Your task to perform on an android device: What's the news in French Guiana? Image 0: 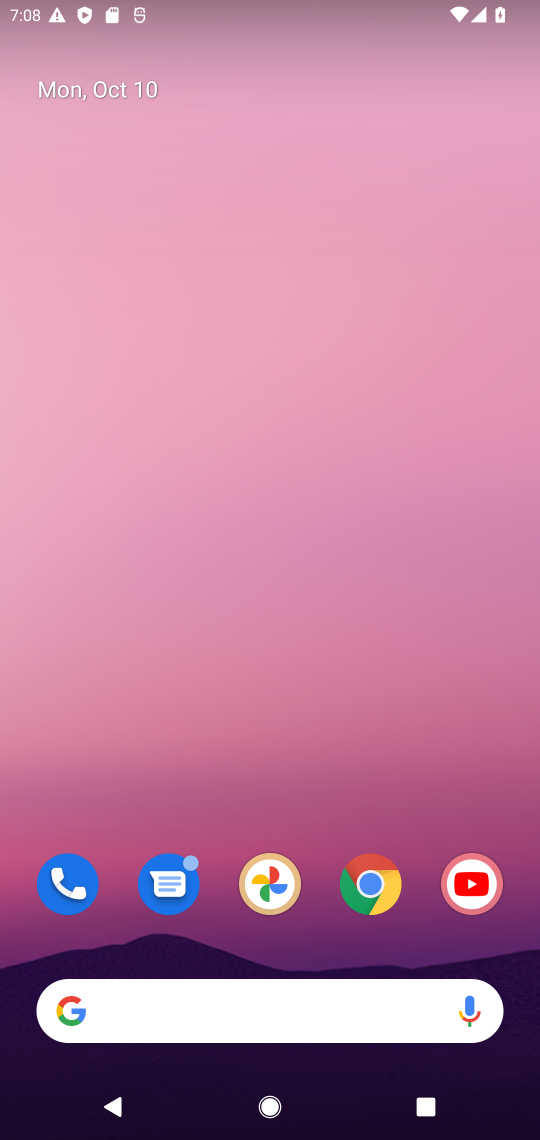
Step 0: click (285, 995)
Your task to perform on an android device: What's the news in French Guiana? Image 1: 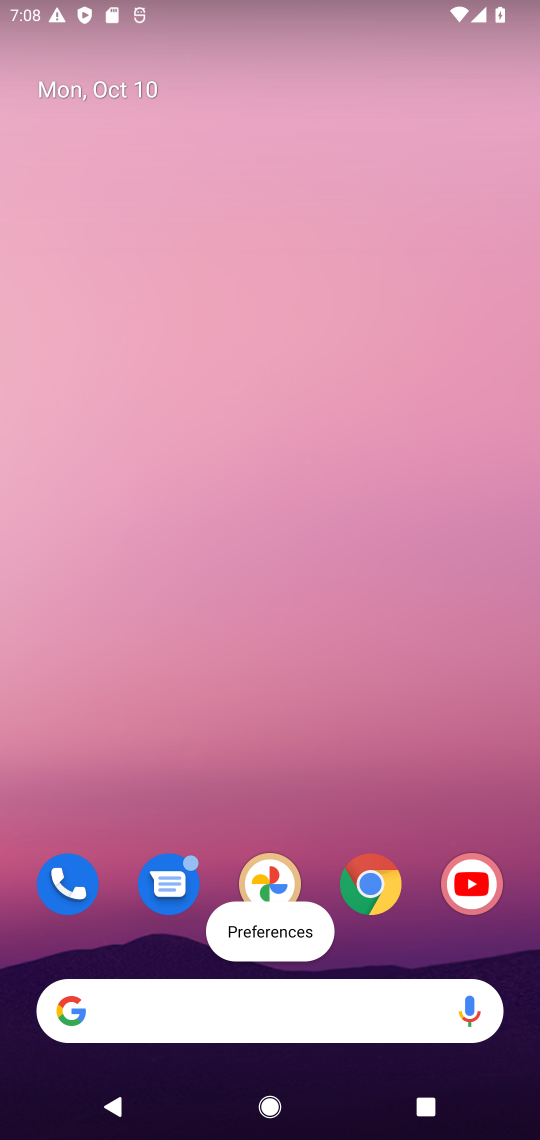
Step 1: click (375, 867)
Your task to perform on an android device: What's the news in French Guiana? Image 2: 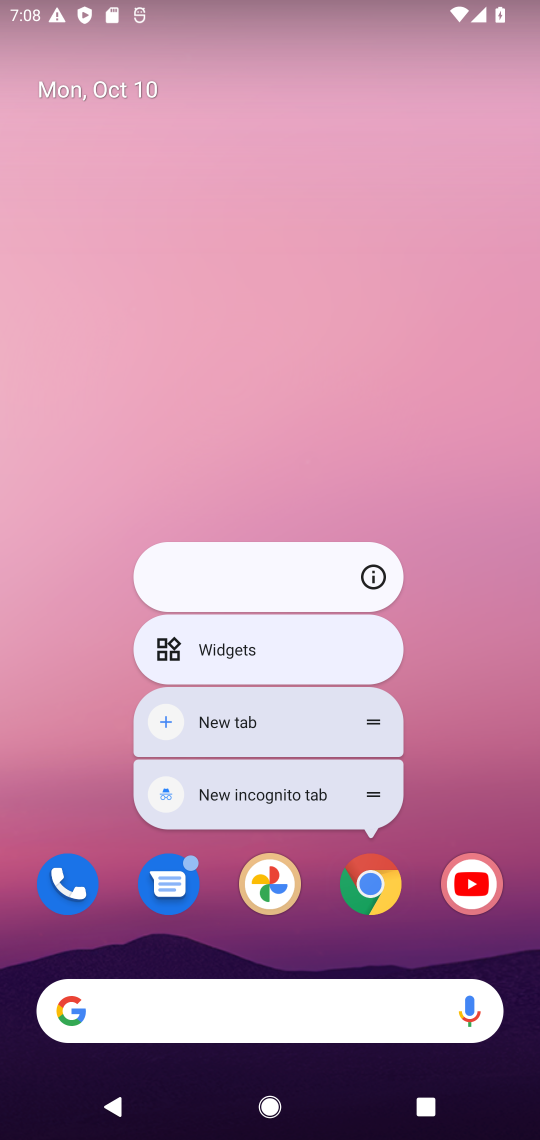
Step 2: click (343, 1067)
Your task to perform on an android device: What's the news in French Guiana? Image 3: 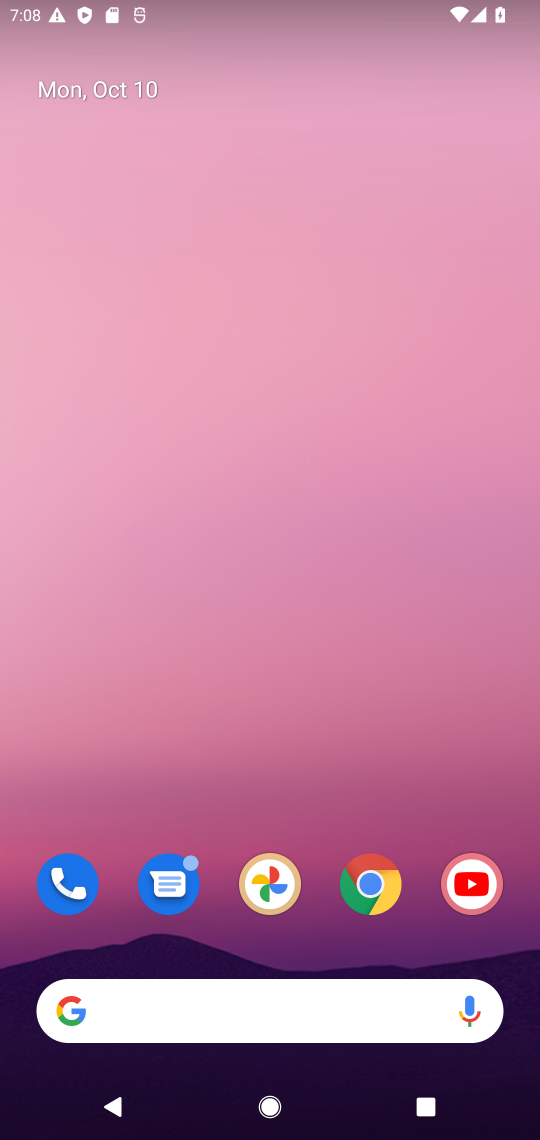
Step 3: click (381, 894)
Your task to perform on an android device: What's the news in French Guiana? Image 4: 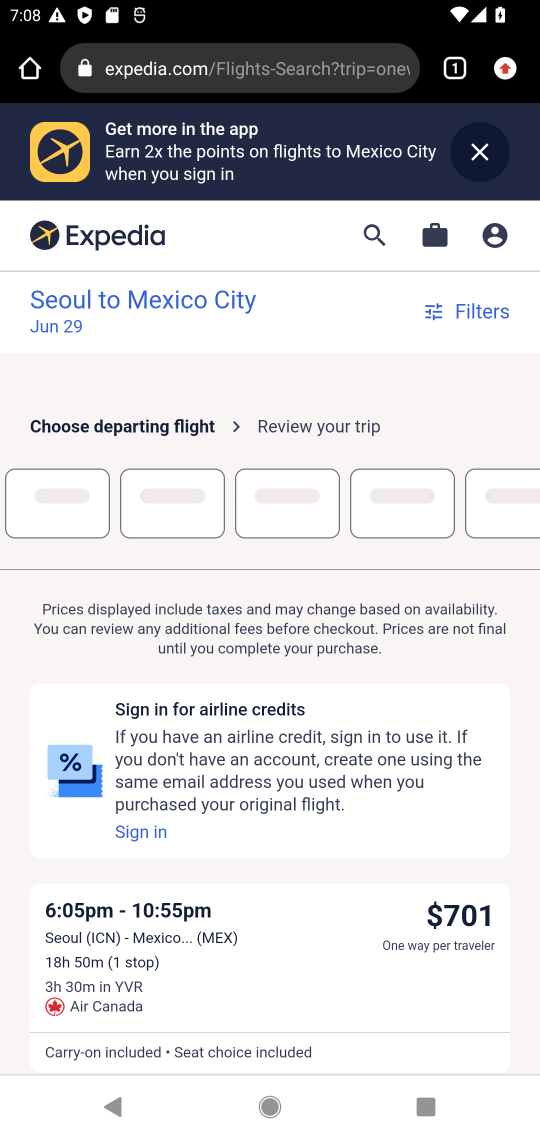
Step 4: click (324, 80)
Your task to perform on an android device: What's the news in French Guiana? Image 5: 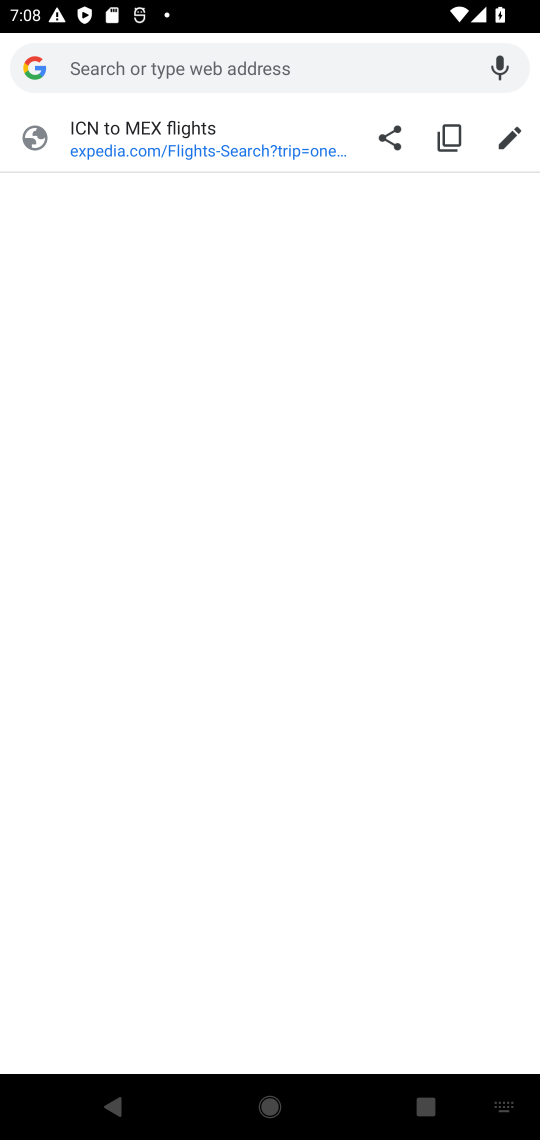
Step 5: type "What's the news in French Guiana?"
Your task to perform on an android device: What's the news in French Guiana? Image 6: 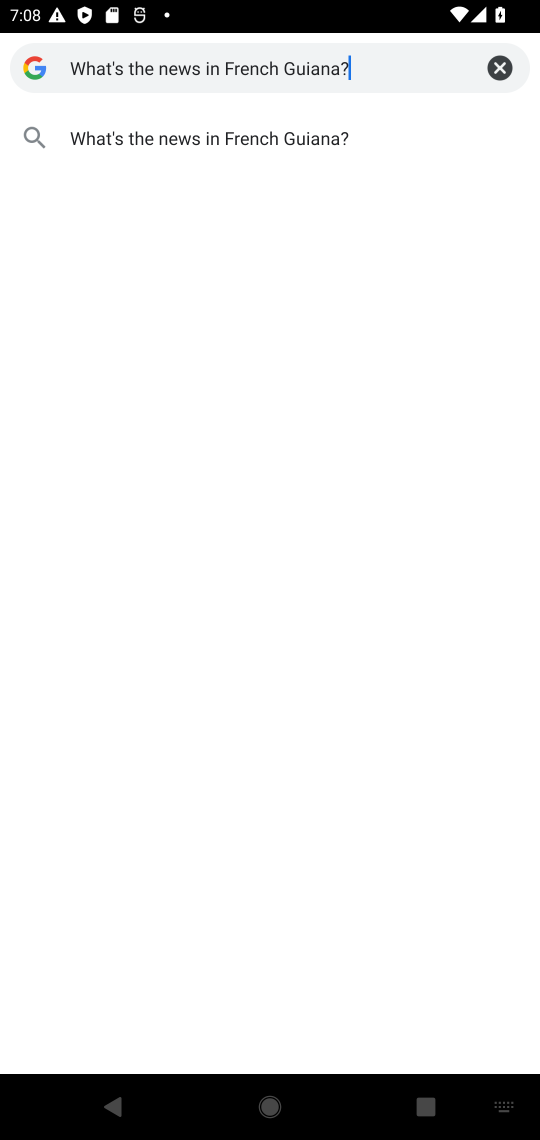
Step 6: click (195, 136)
Your task to perform on an android device: What's the news in French Guiana? Image 7: 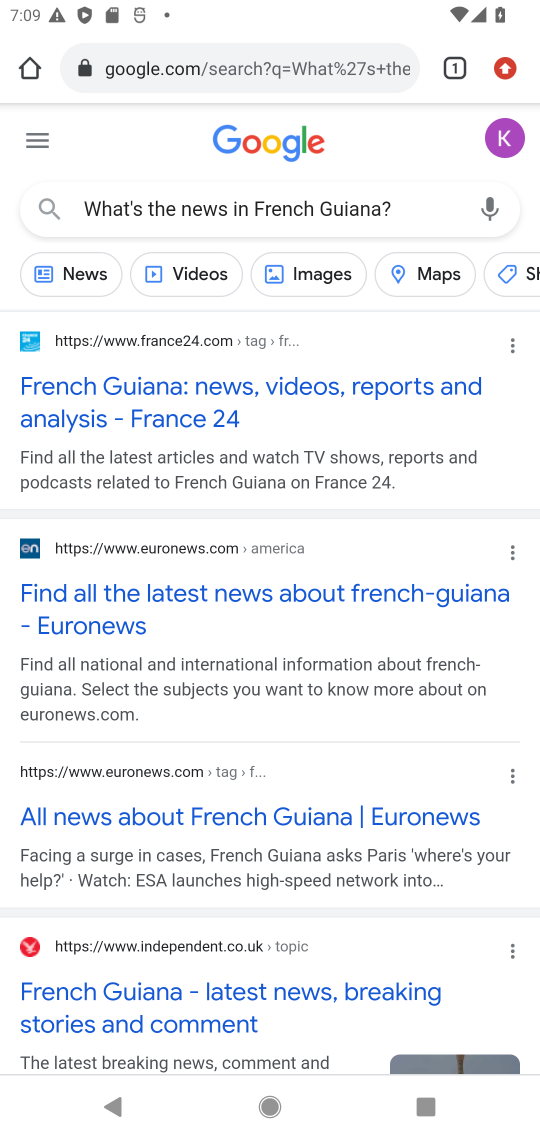
Step 7: click (194, 391)
Your task to perform on an android device: What's the news in French Guiana? Image 8: 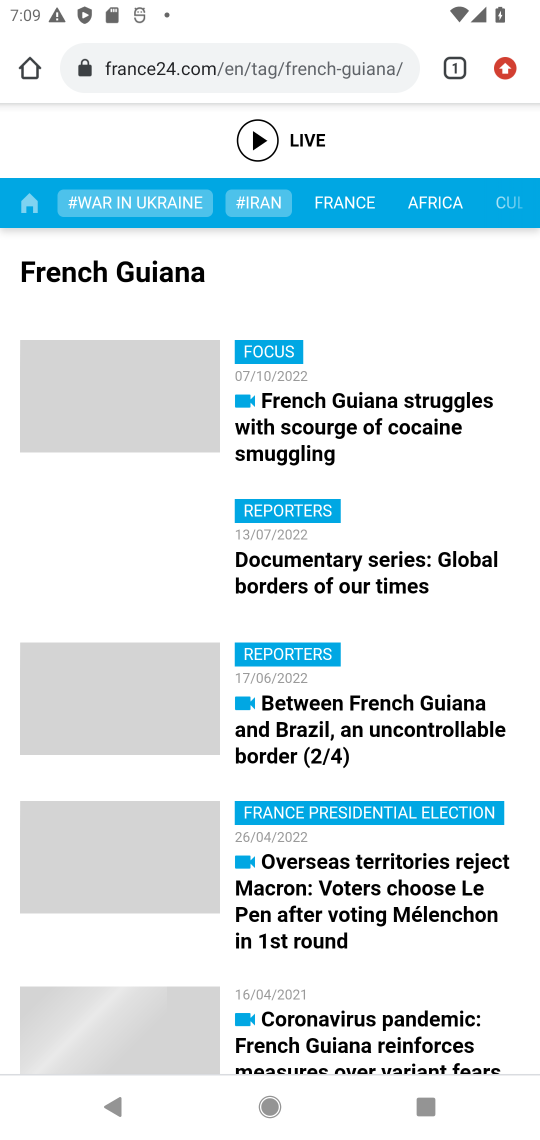
Step 8: drag from (405, 951) to (334, 272)
Your task to perform on an android device: What's the news in French Guiana? Image 9: 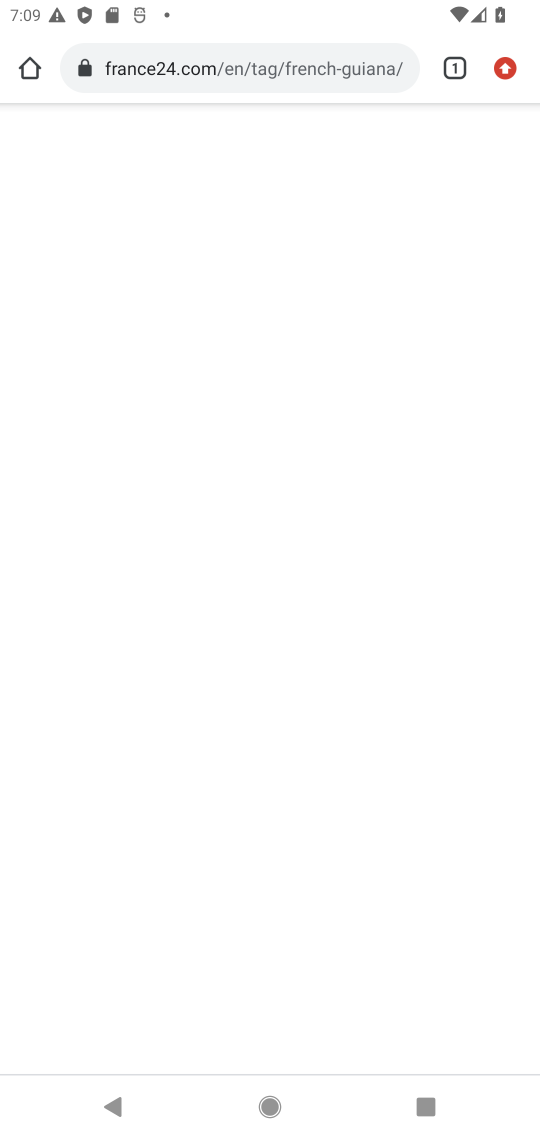
Step 9: drag from (370, 788) to (359, 392)
Your task to perform on an android device: What's the news in French Guiana? Image 10: 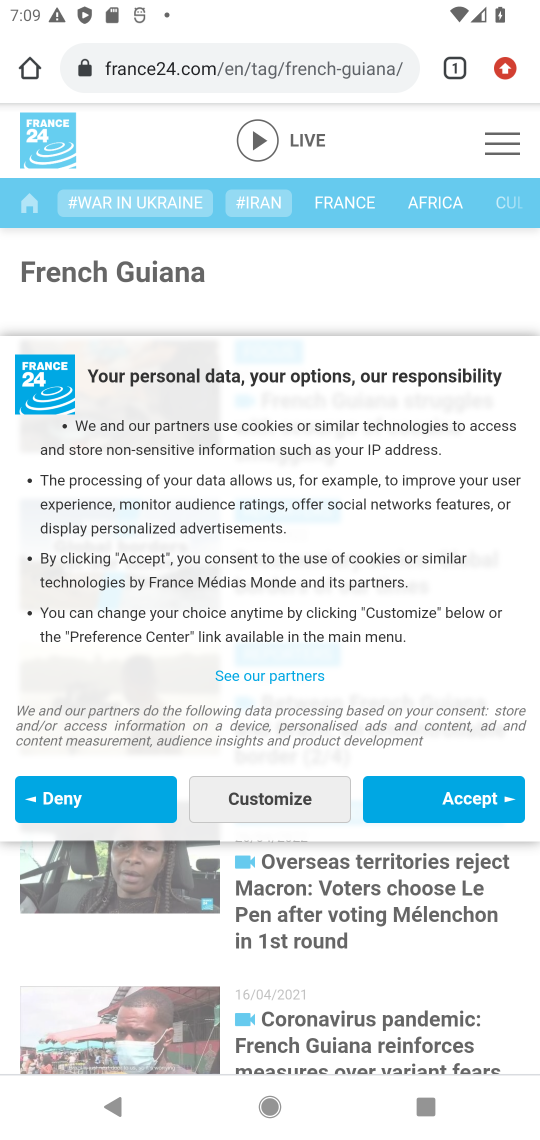
Step 10: drag from (357, 608) to (344, 798)
Your task to perform on an android device: What's the news in French Guiana? Image 11: 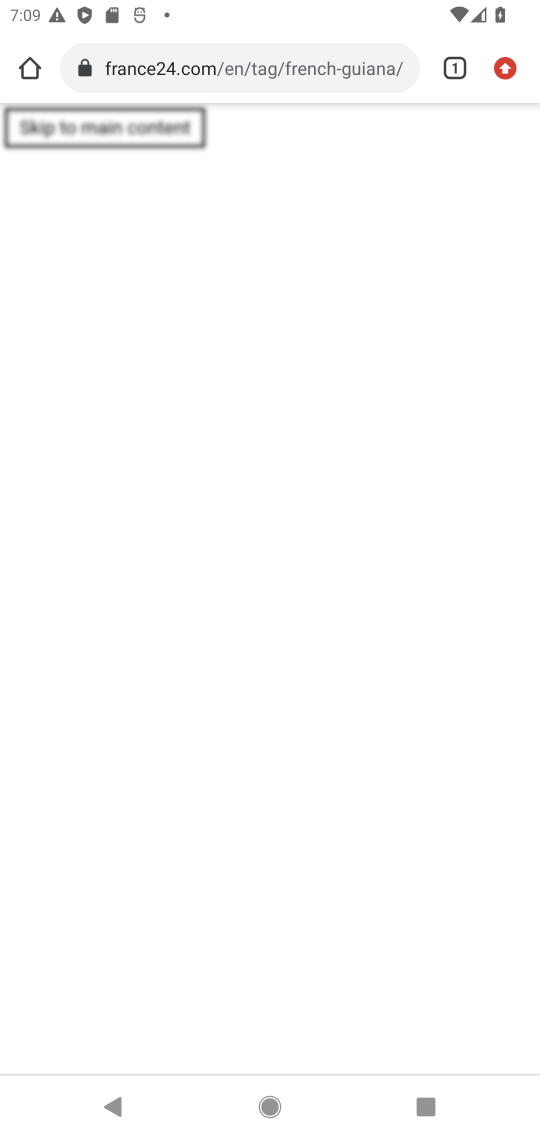
Step 11: drag from (347, 929) to (334, 684)
Your task to perform on an android device: What's the news in French Guiana? Image 12: 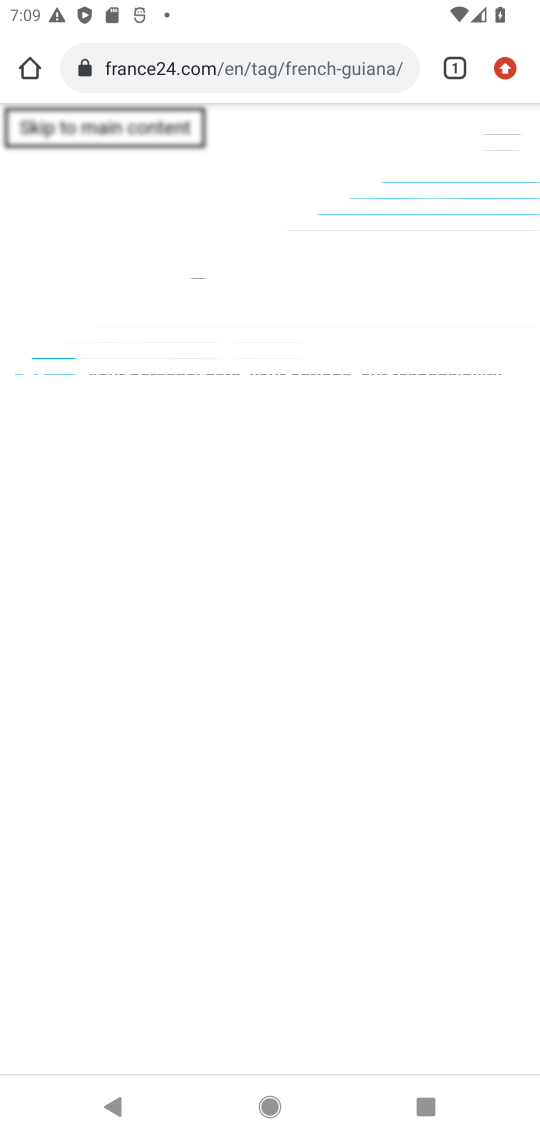
Step 12: press back button
Your task to perform on an android device: What's the news in French Guiana? Image 13: 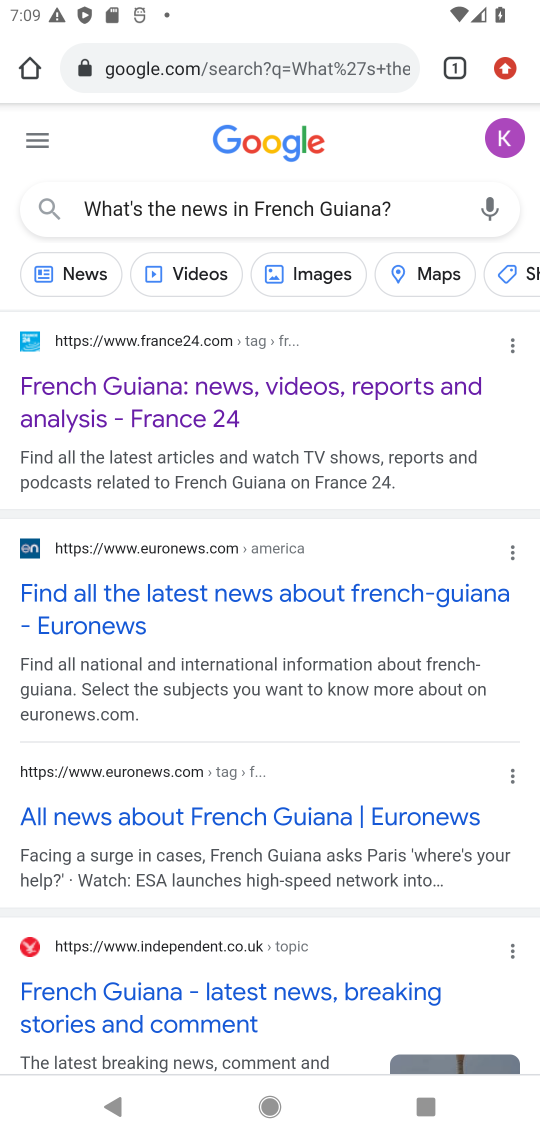
Step 13: click (227, 601)
Your task to perform on an android device: What's the news in French Guiana? Image 14: 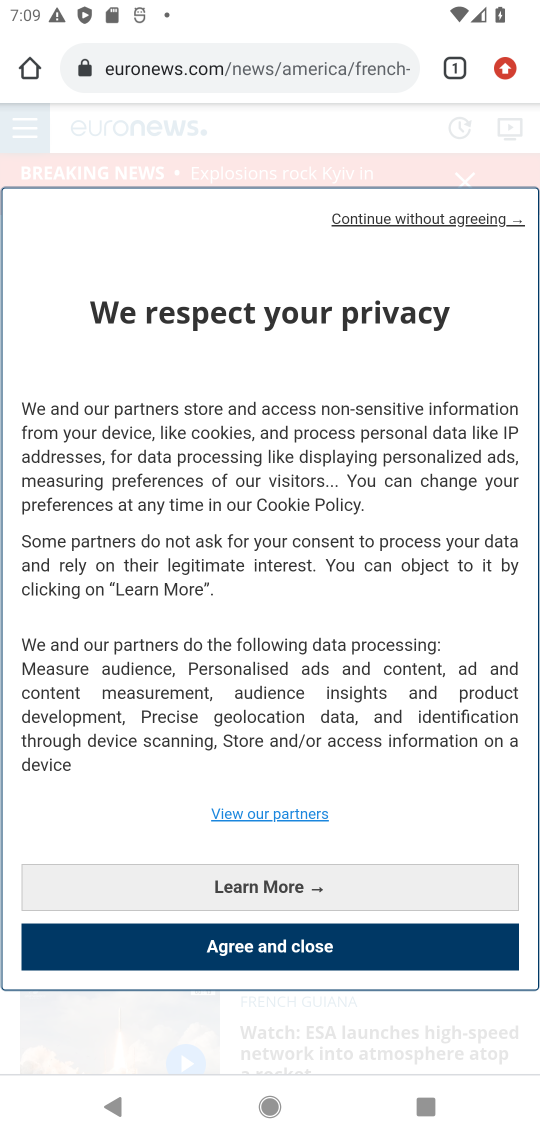
Step 14: drag from (299, 756) to (358, 368)
Your task to perform on an android device: What's the news in French Guiana? Image 15: 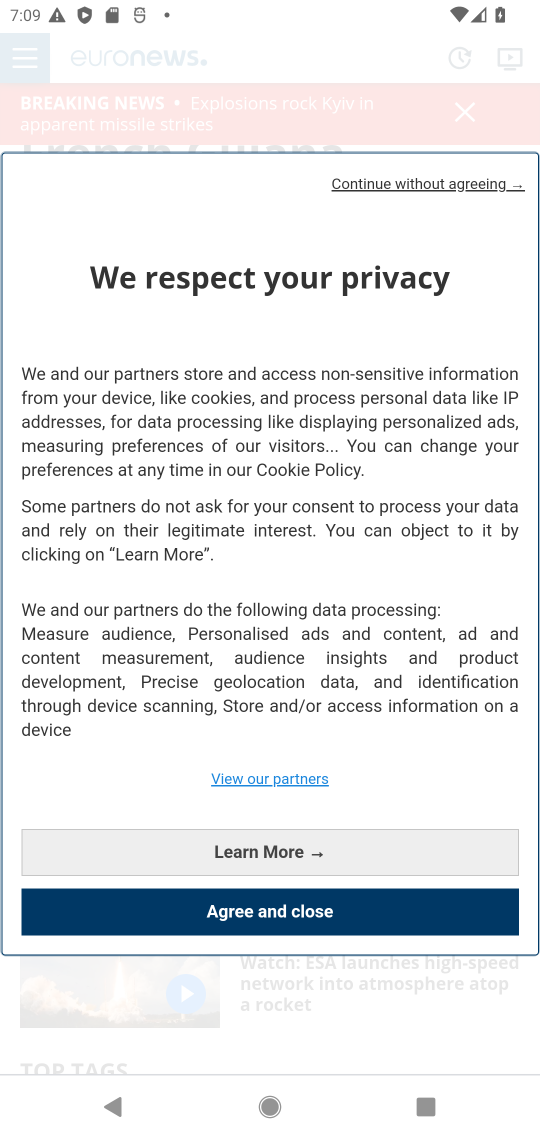
Step 15: click (387, 870)
Your task to perform on an android device: What's the news in French Guiana? Image 16: 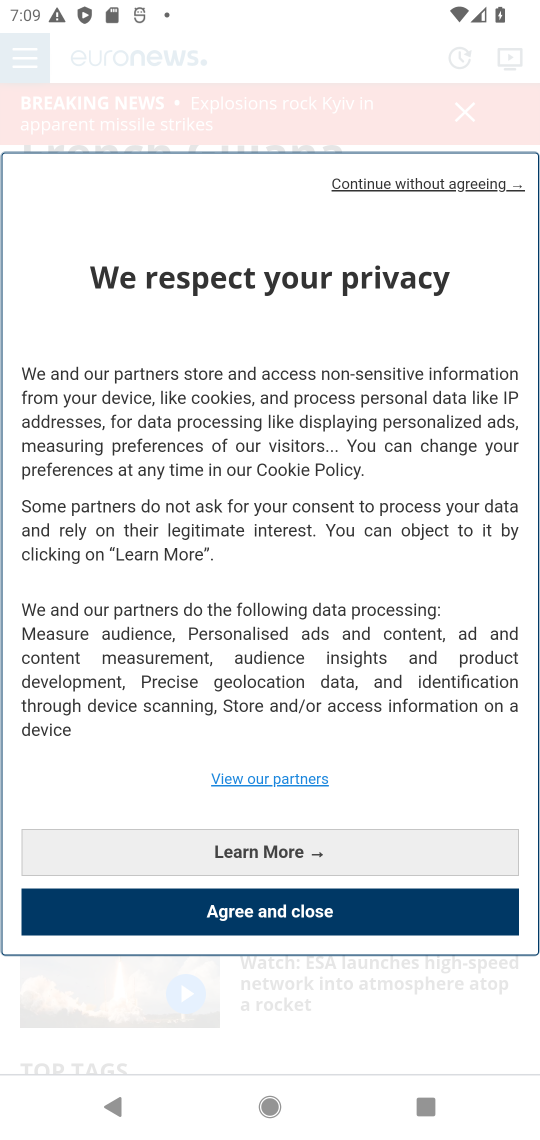
Step 16: click (382, 880)
Your task to perform on an android device: What's the news in French Guiana? Image 17: 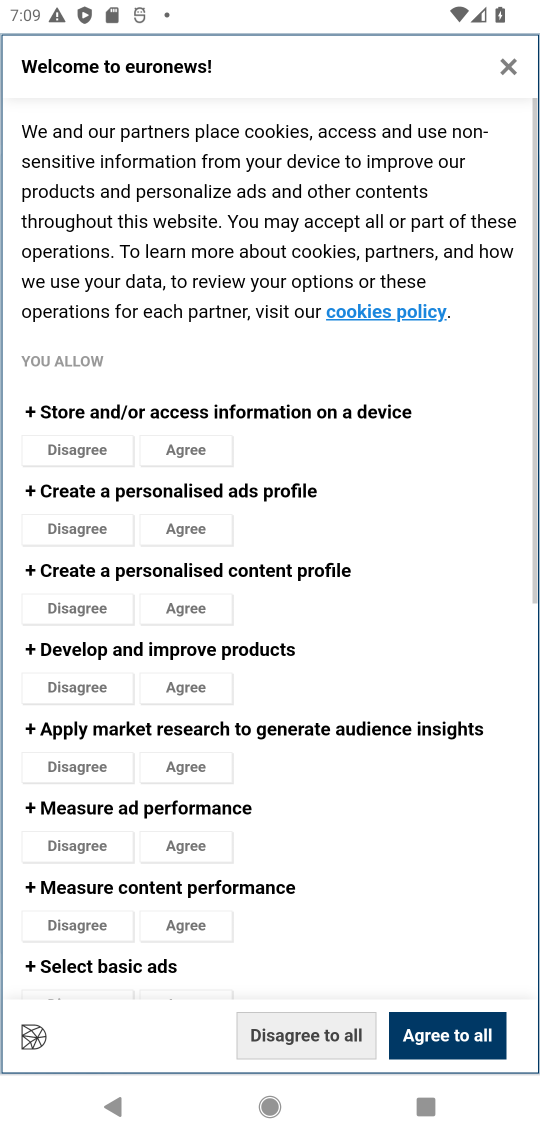
Step 17: click (377, 907)
Your task to perform on an android device: What's the news in French Guiana? Image 18: 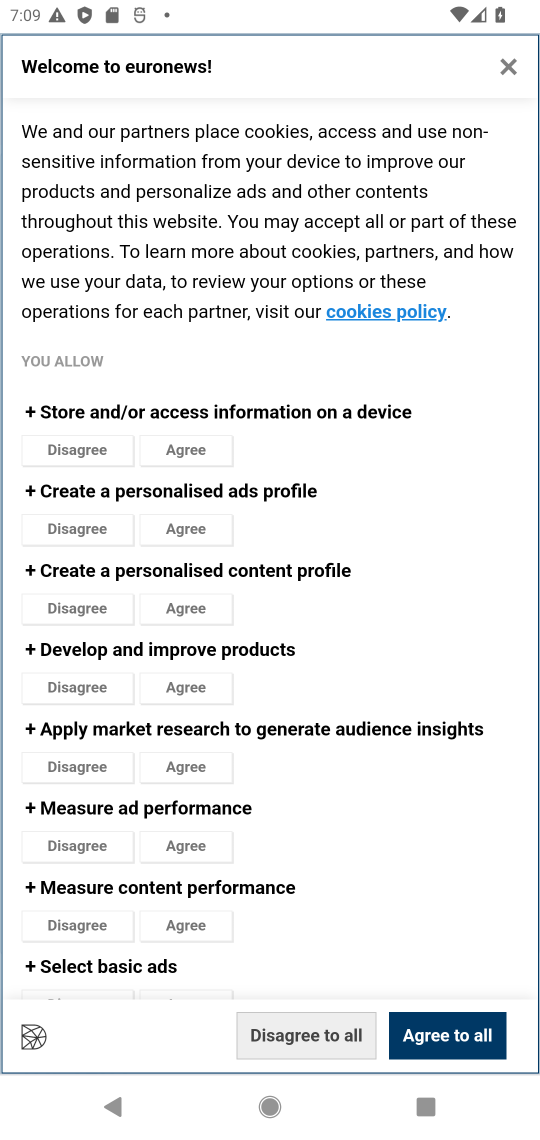
Step 18: drag from (377, 907) to (424, 460)
Your task to perform on an android device: What's the news in French Guiana? Image 19: 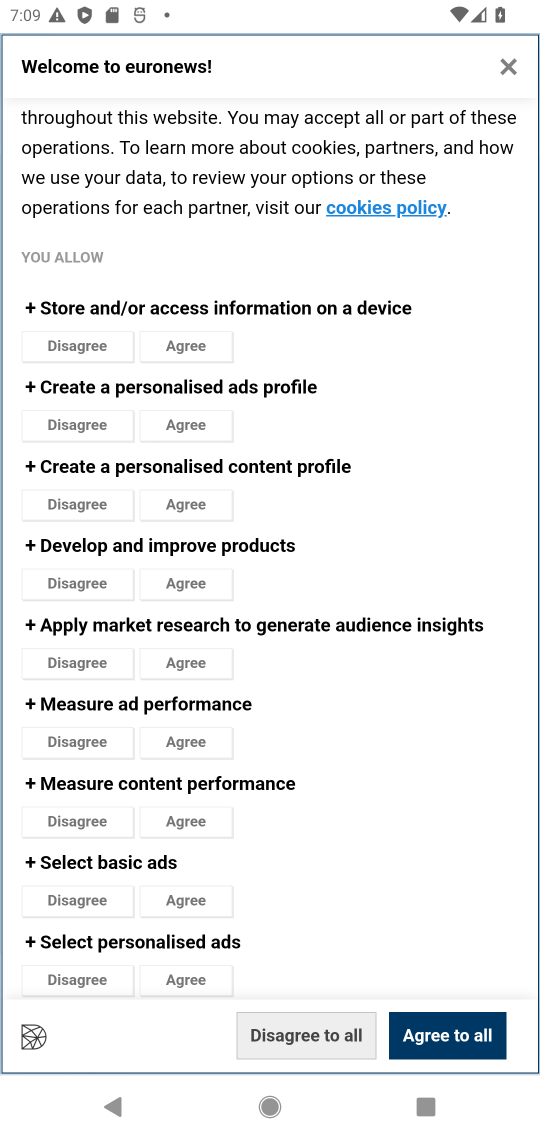
Step 19: drag from (385, 792) to (408, 414)
Your task to perform on an android device: What's the news in French Guiana? Image 20: 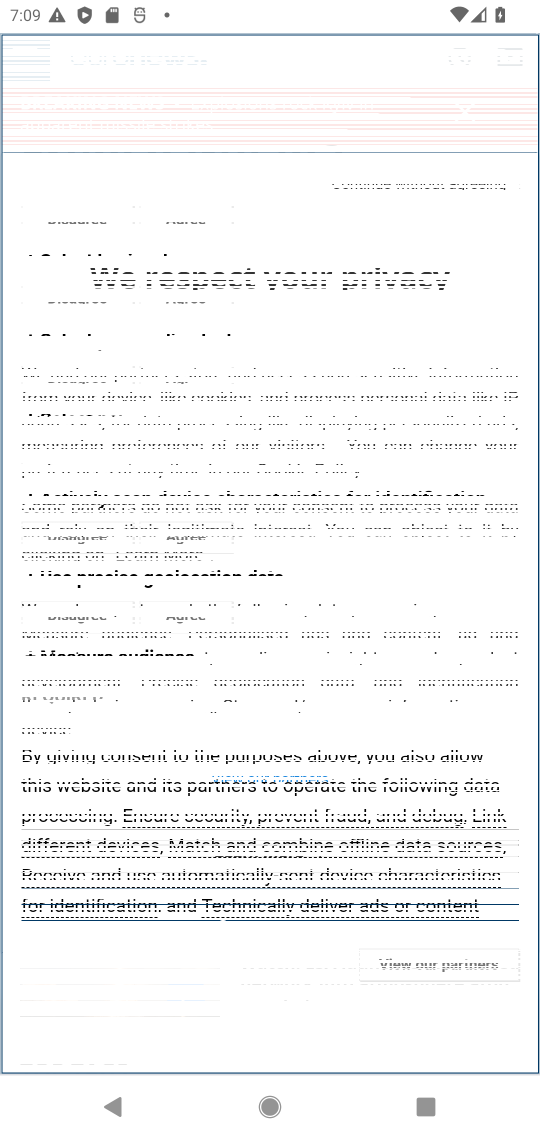
Step 20: drag from (416, 783) to (474, 365)
Your task to perform on an android device: What's the news in French Guiana? Image 21: 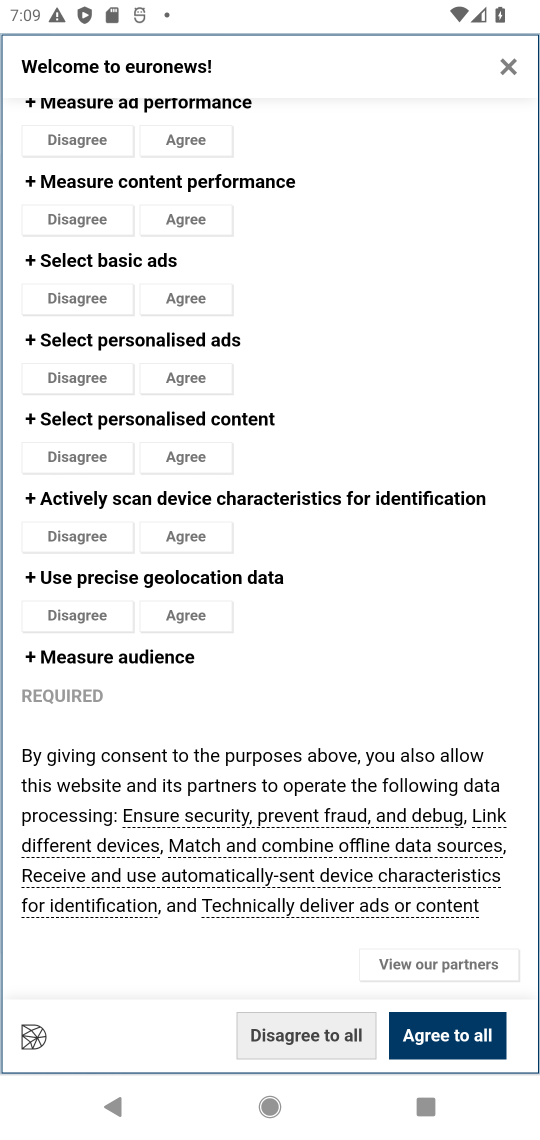
Step 21: drag from (402, 667) to (408, 478)
Your task to perform on an android device: What's the news in French Guiana? Image 22: 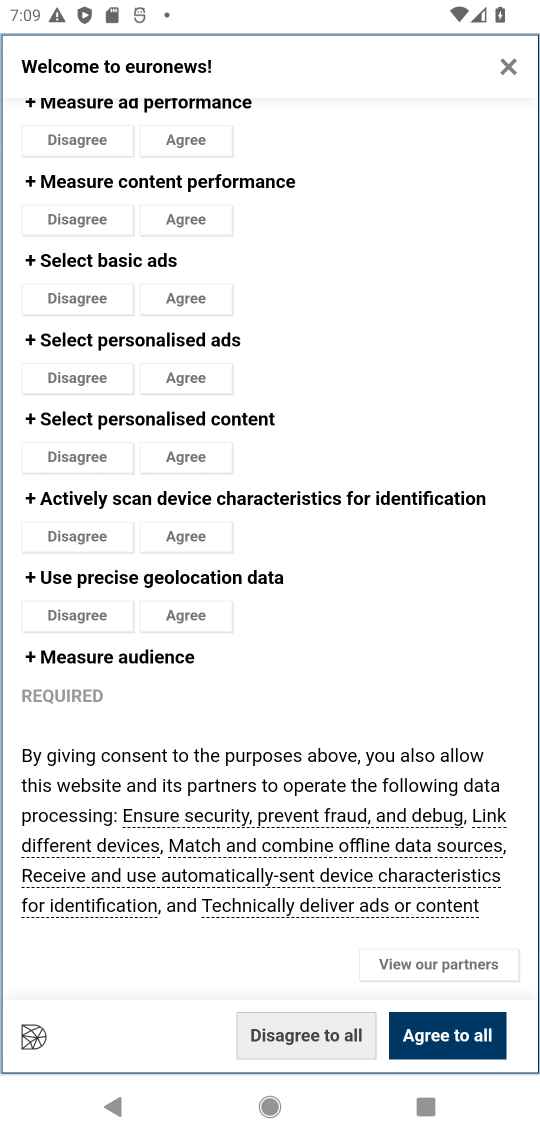
Step 22: drag from (334, 614) to (323, 364)
Your task to perform on an android device: What's the news in French Guiana? Image 23: 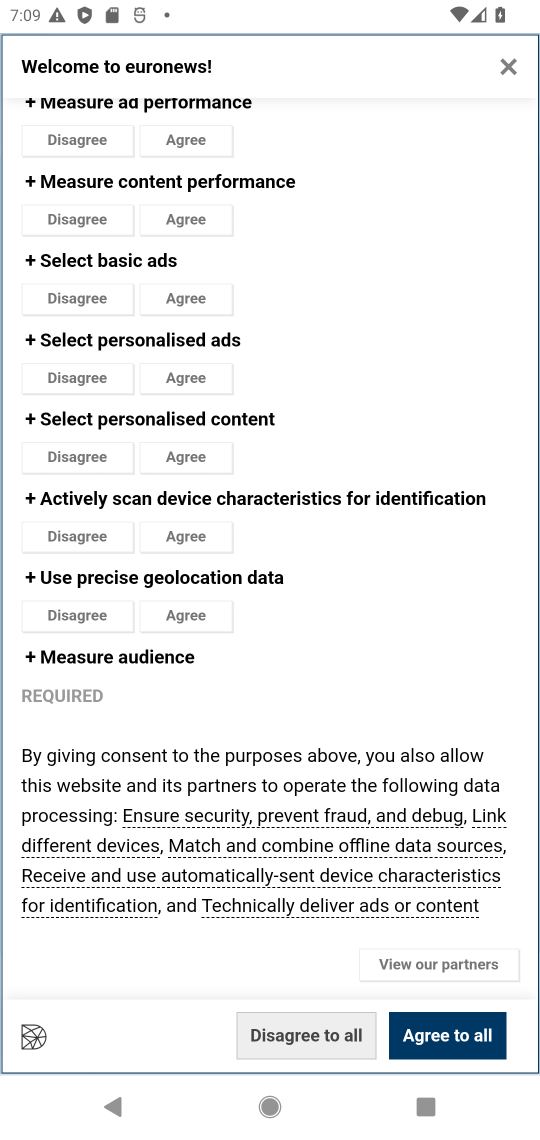
Step 23: drag from (355, 535) to (357, 384)
Your task to perform on an android device: What's the news in French Guiana? Image 24: 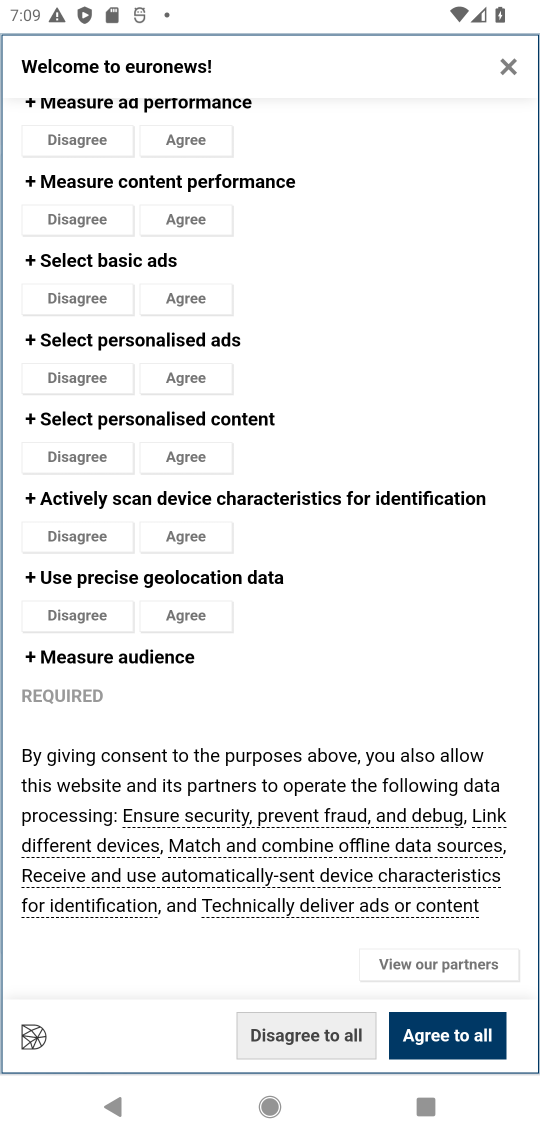
Step 24: drag from (369, 693) to (409, 308)
Your task to perform on an android device: What's the news in French Guiana? Image 25: 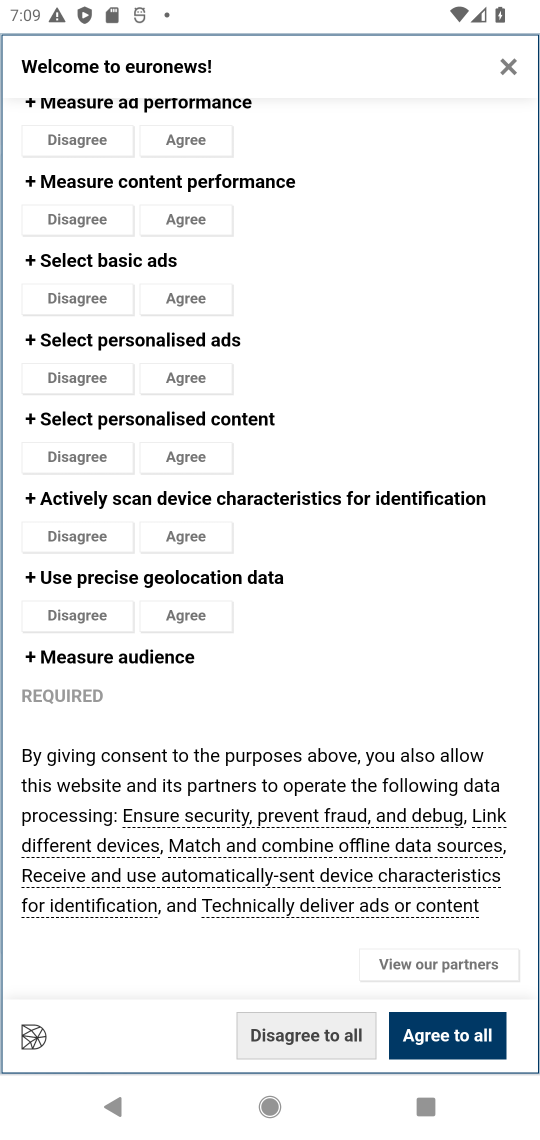
Step 25: press back button
Your task to perform on an android device: What's the news in French Guiana? Image 26: 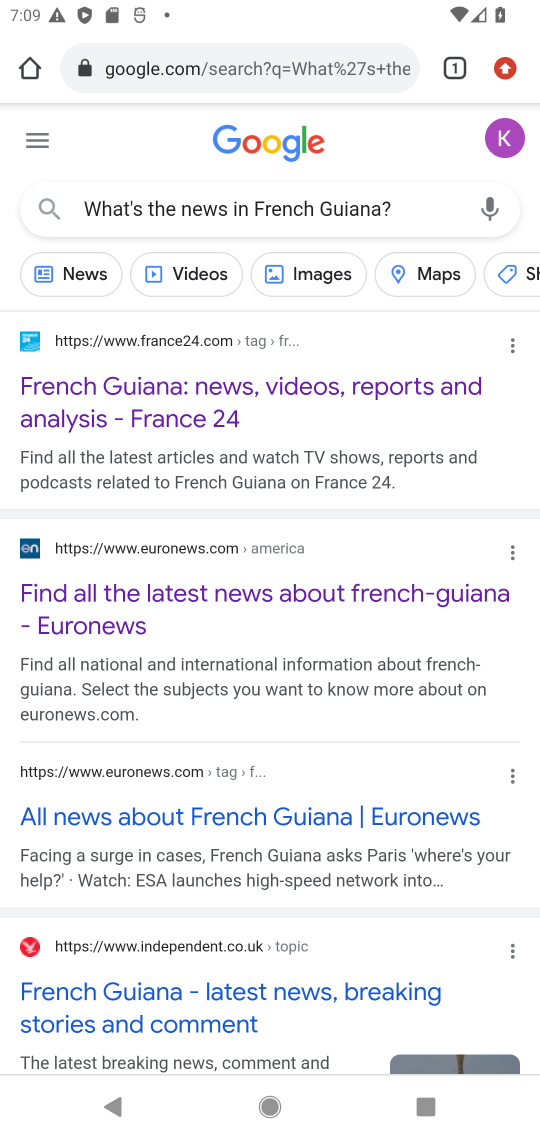
Step 26: click (146, 806)
Your task to perform on an android device: What's the news in French Guiana? Image 27: 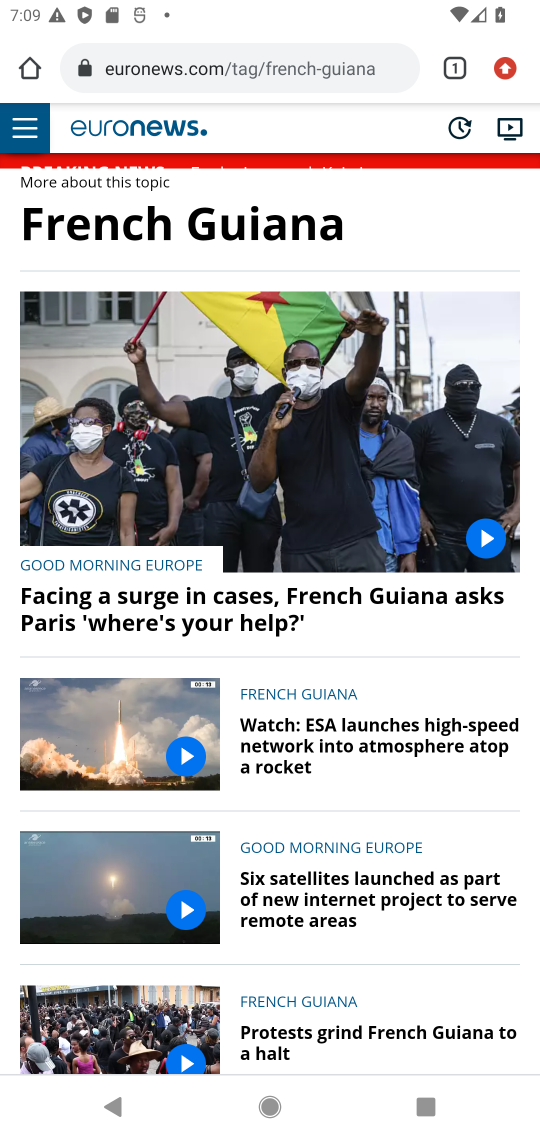
Step 27: drag from (181, 817) to (167, 567)
Your task to perform on an android device: What's the news in French Guiana? Image 28: 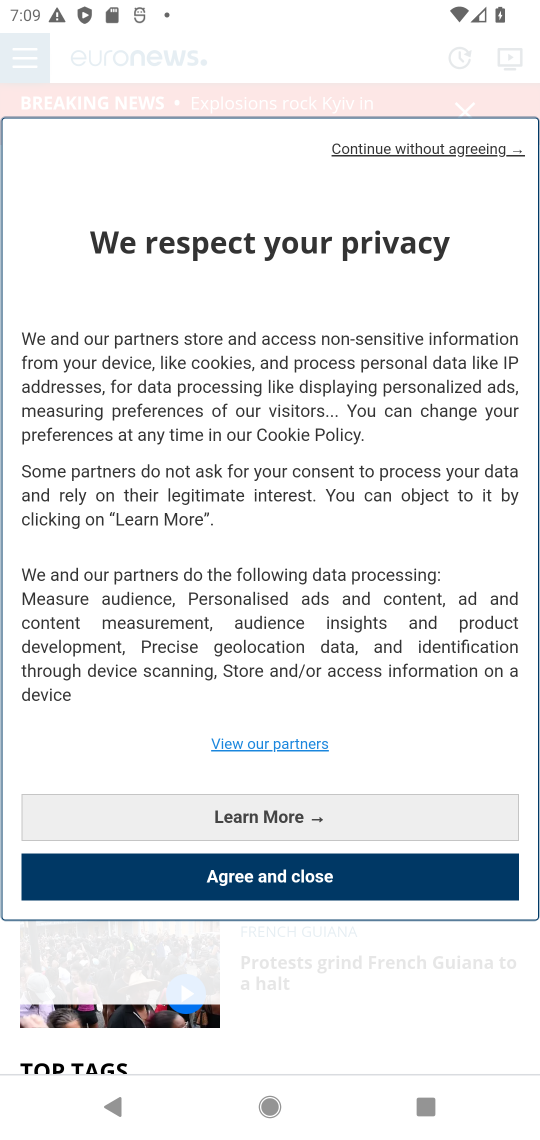
Step 28: drag from (232, 886) to (270, 563)
Your task to perform on an android device: What's the news in French Guiana? Image 29: 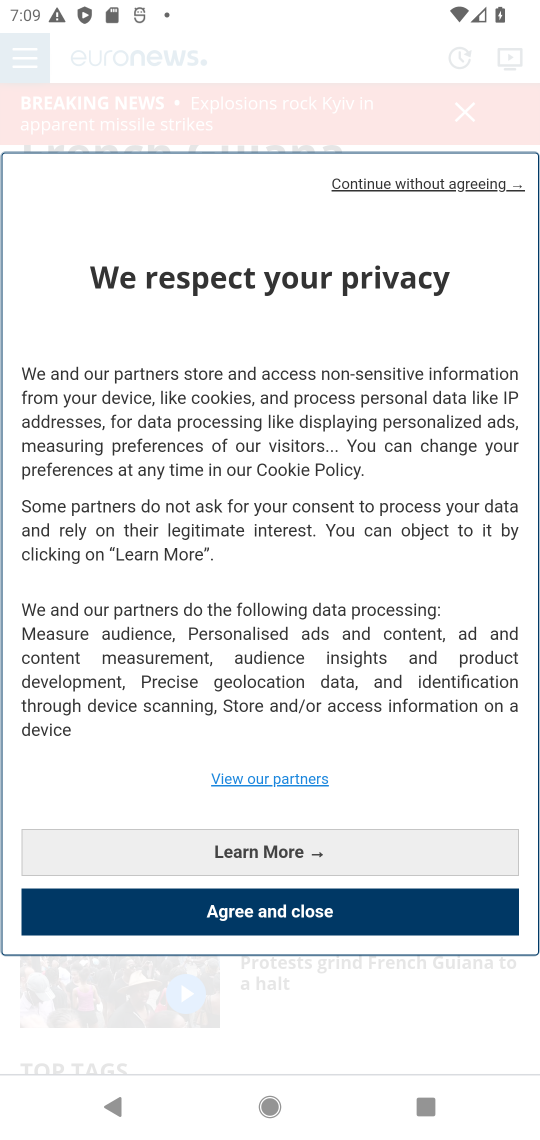
Step 29: click (402, 184)
Your task to perform on an android device: What's the news in French Guiana? Image 30: 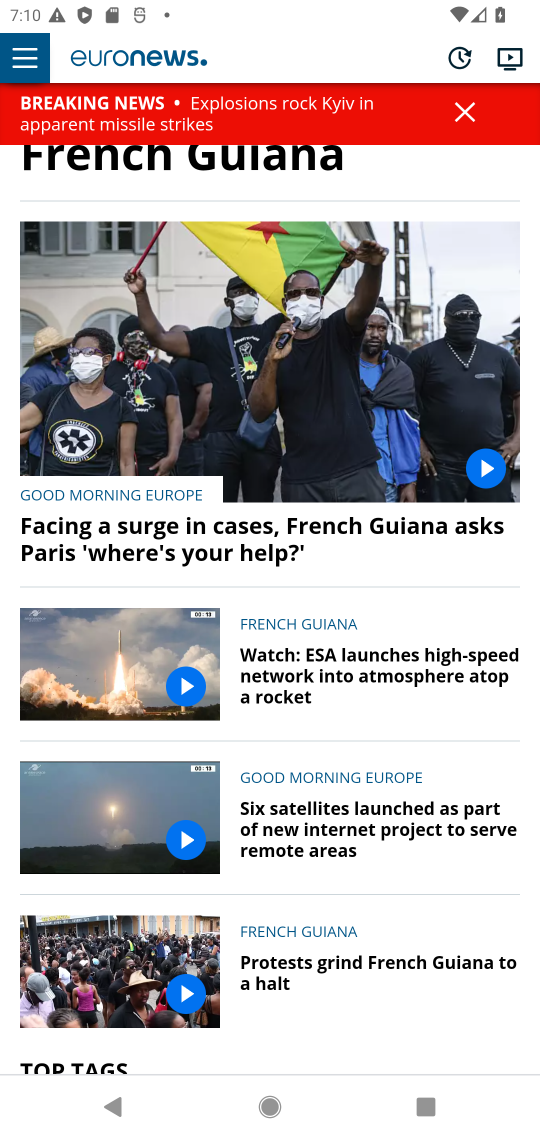
Step 30: click (480, 106)
Your task to perform on an android device: What's the news in French Guiana? Image 31: 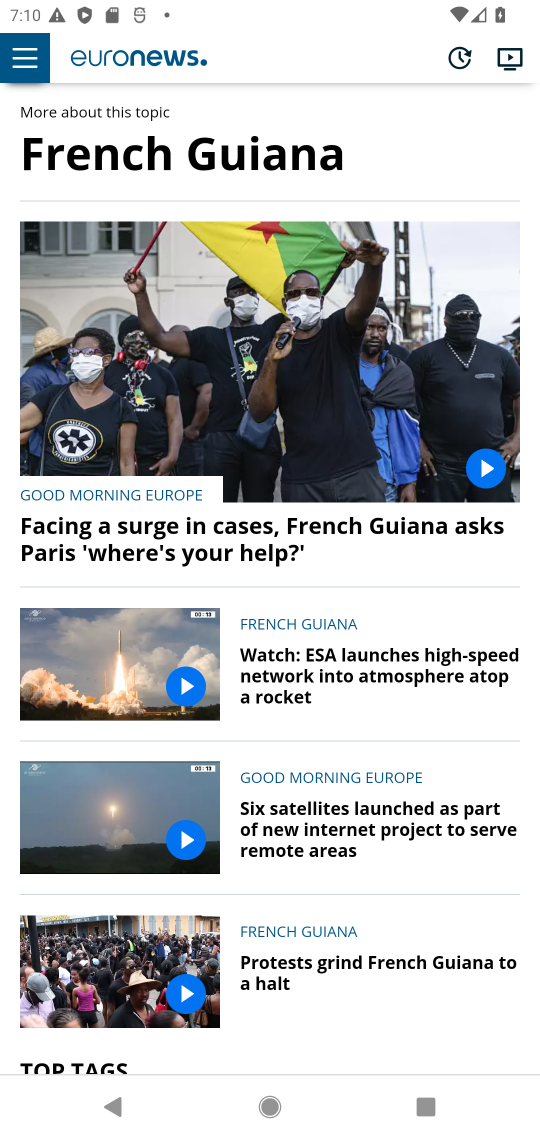
Step 31: drag from (235, 984) to (241, 288)
Your task to perform on an android device: What's the news in French Guiana? Image 32: 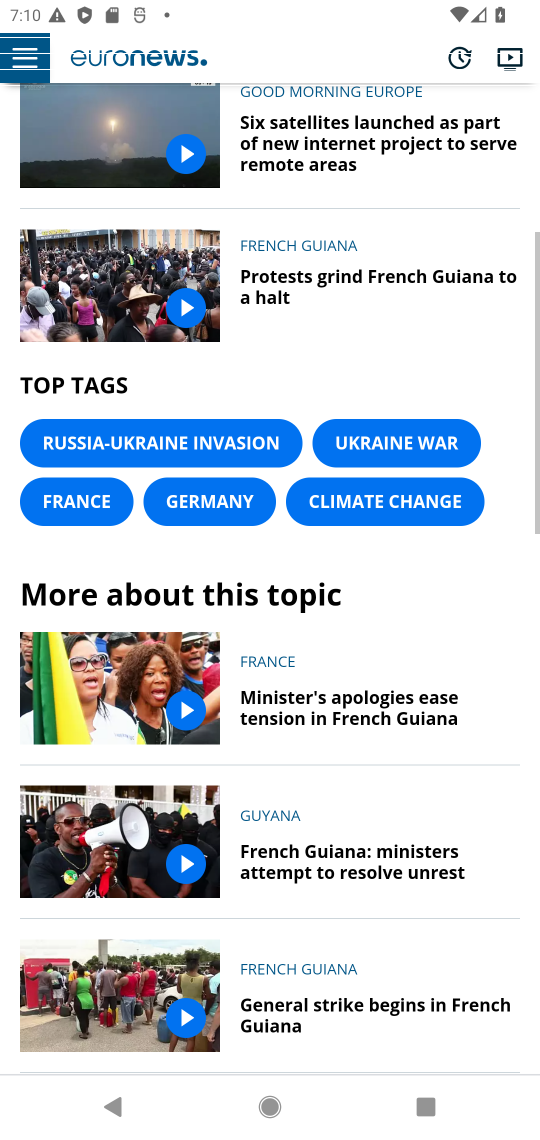
Step 32: drag from (293, 862) to (360, 129)
Your task to perform on an android device: What's the news in French Guiana? Image 33: 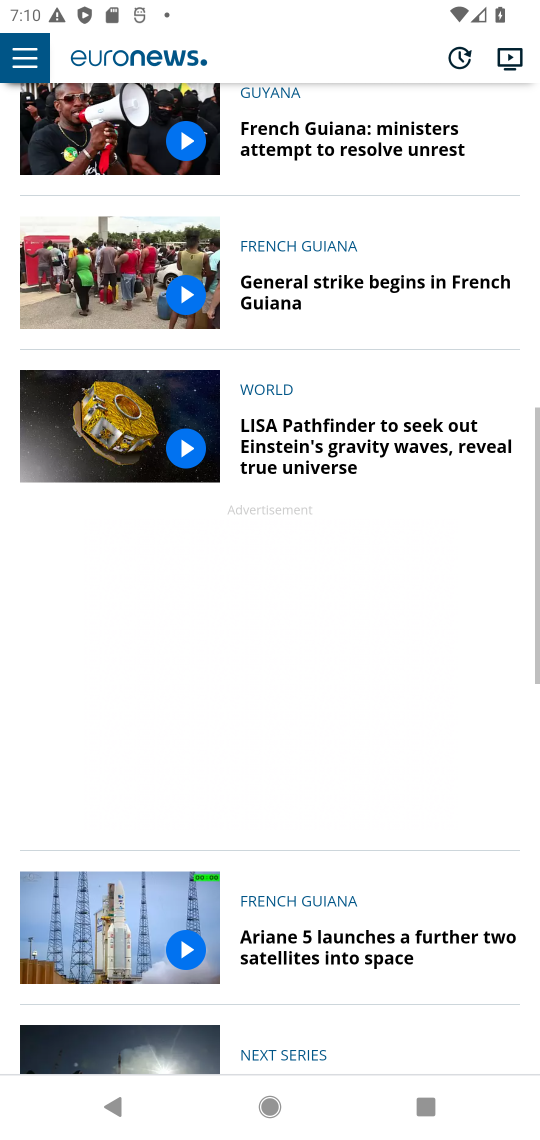
Step 33: drag from (363, 790) to (377, 171)
Your task to perform on an android device: What's the news in French Guiana? Image 34: 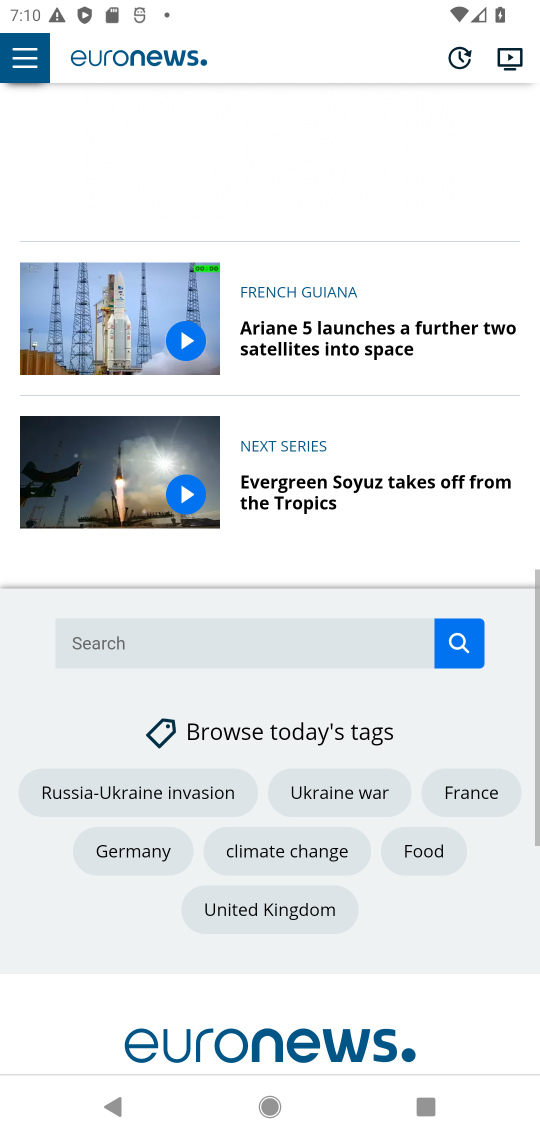
Step 34: drag from (369, 726) to (340, 147)
Your task to perform on an android device: What's the news in French Guiana? Image 35: 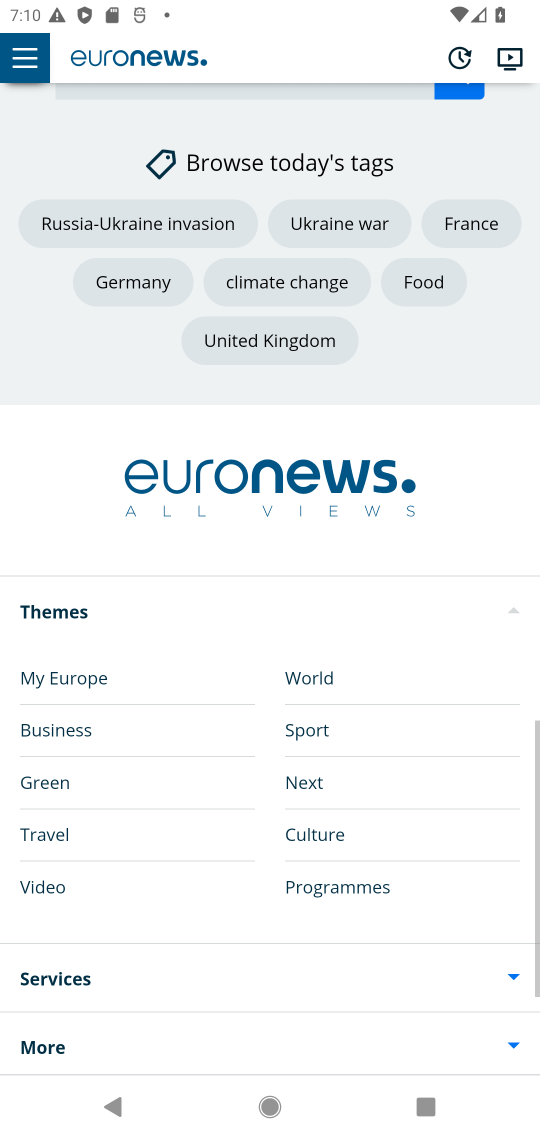
Step 35: drag from (364, 626) to (371, 220)
Your task to perform on an android device: What's the news in French Guiana? Image 36: 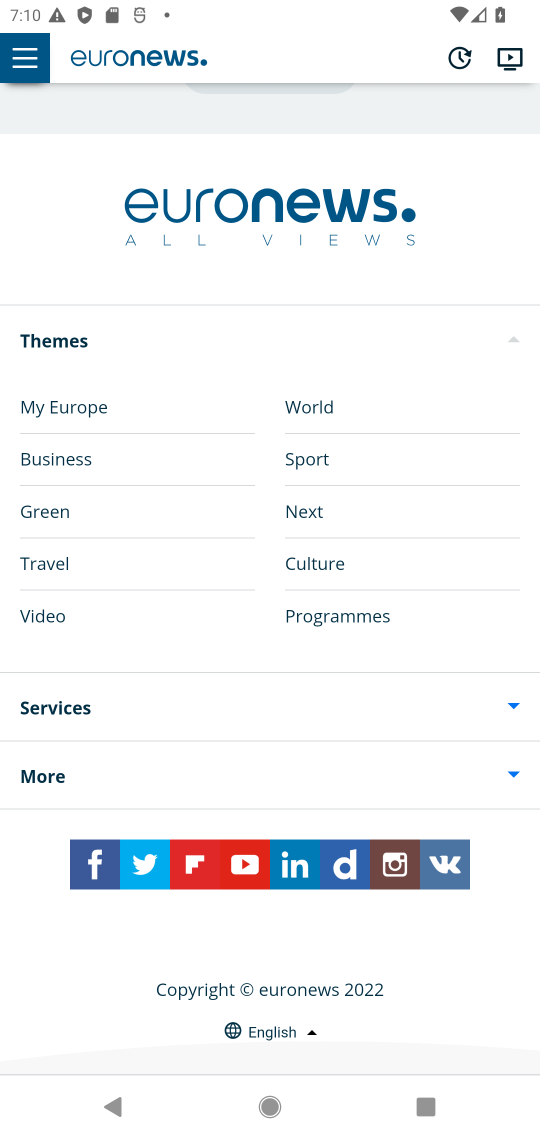
Step 36: drag from (414, 299) to (419, 228)
Your task to perform on an android device: What's the news in French Guiana? Image 37: 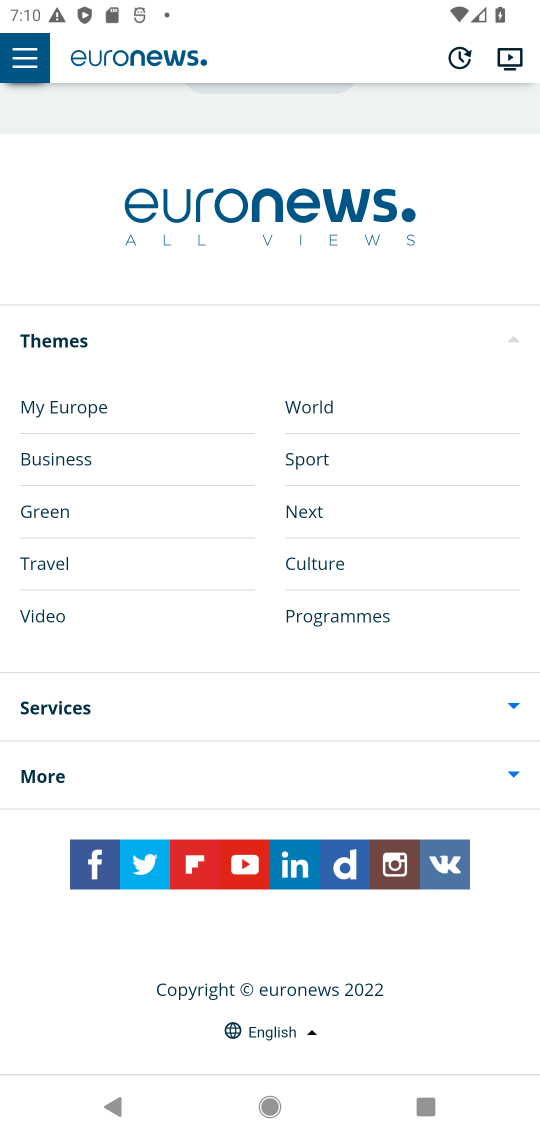
Step 37: press back button
Your task to perform on an android device: What's the news in French Guiana? Image 38: 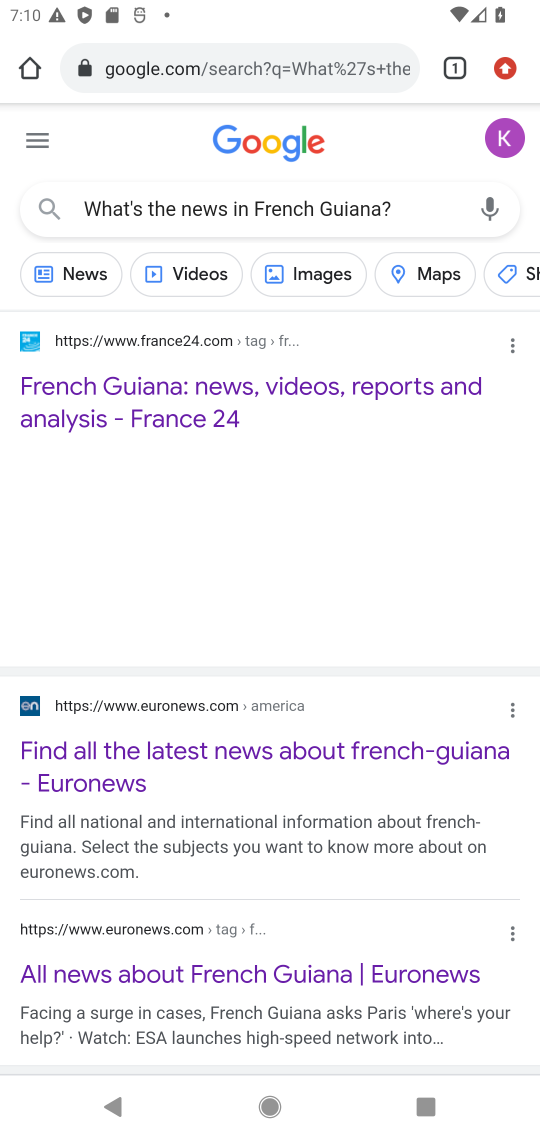
Step 38: drag from (232, 968) to (255, 296)
Your task to perform on an android device: What's the news in French Guiana? Image 39: 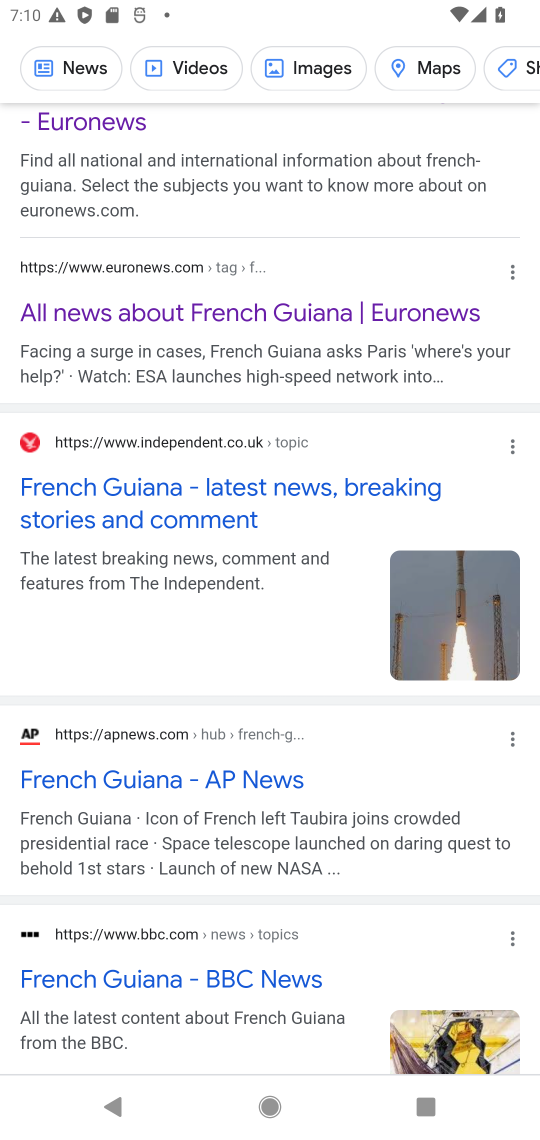
Step 39: drag from (229, 957) to (228, 521)
Your task to perform on an android device: What's the news in French Guiana? Image 40: 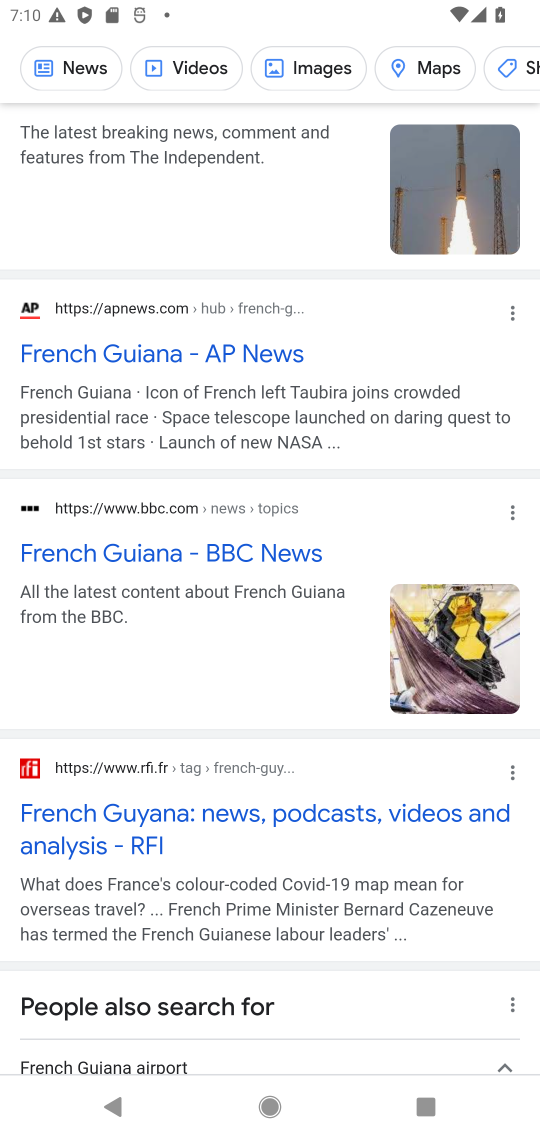
Step 40: click (187, 354)
Your task to perform on an android device: What's the news in French Guiana? Image 41: 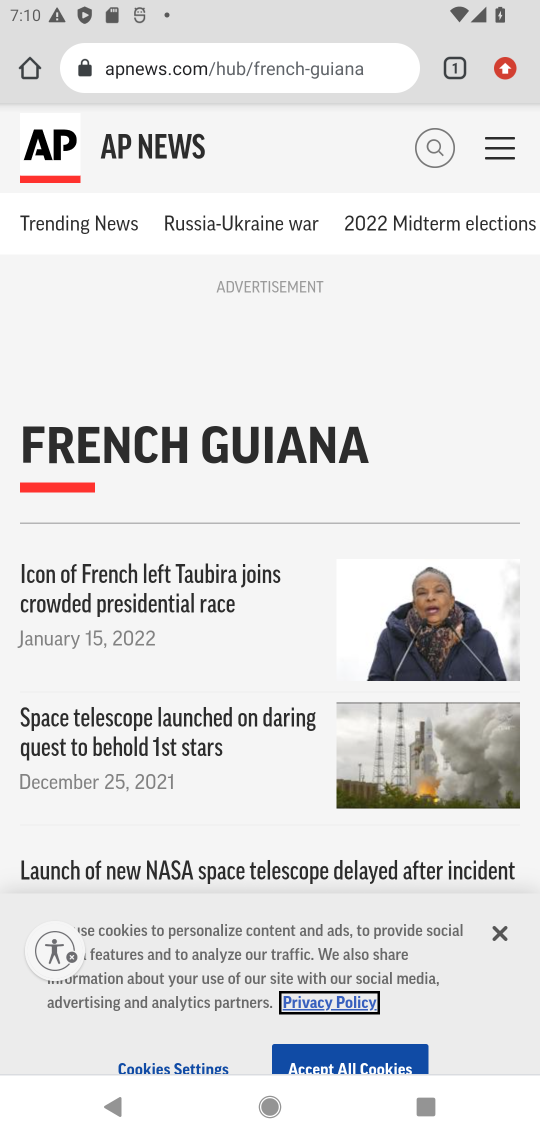
Step 41: drag from (282, 852) to (337, 250)
Your task to perform on an android device: What's the news in French Guiana? Image 42: 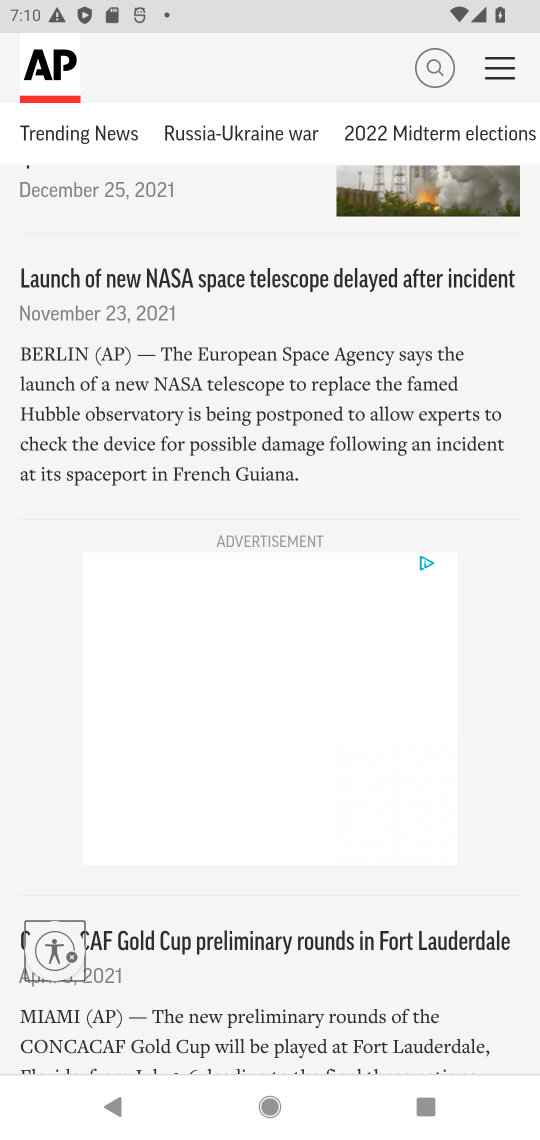
Step 42: click (493, 889)
Your task to perform on an android device: What's the news in French Guiana? Image 43: 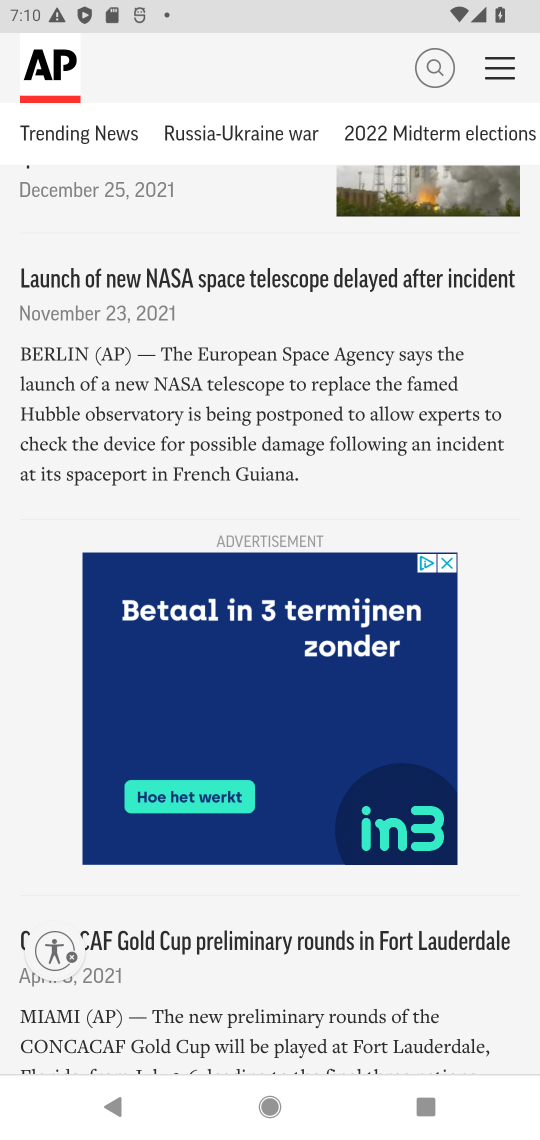
Step 43: drag from (485, 858) to (458, 328)
Your task to perform on an android device: What's the news in French Guiana? Image 44: 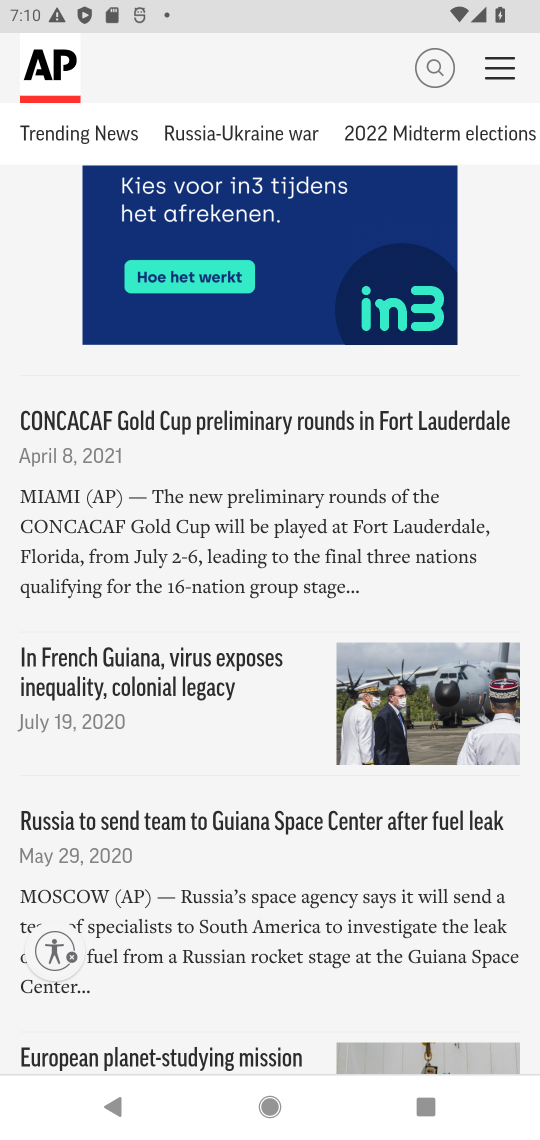
Step 44: drag from (418, 730) to (437, 311)
Your task to perform on an android device: What's the news in French Guiana? Image 45: 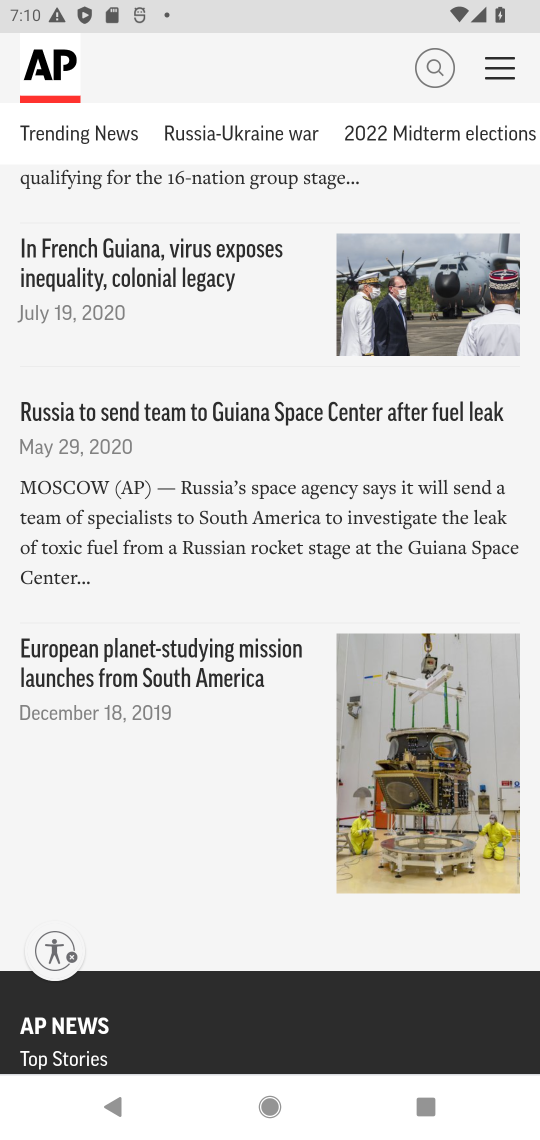
Step 45: drag from (423, 690) to (438, 350)
Your task to perform on an android device: What's the news in French Guiana? Image 46: 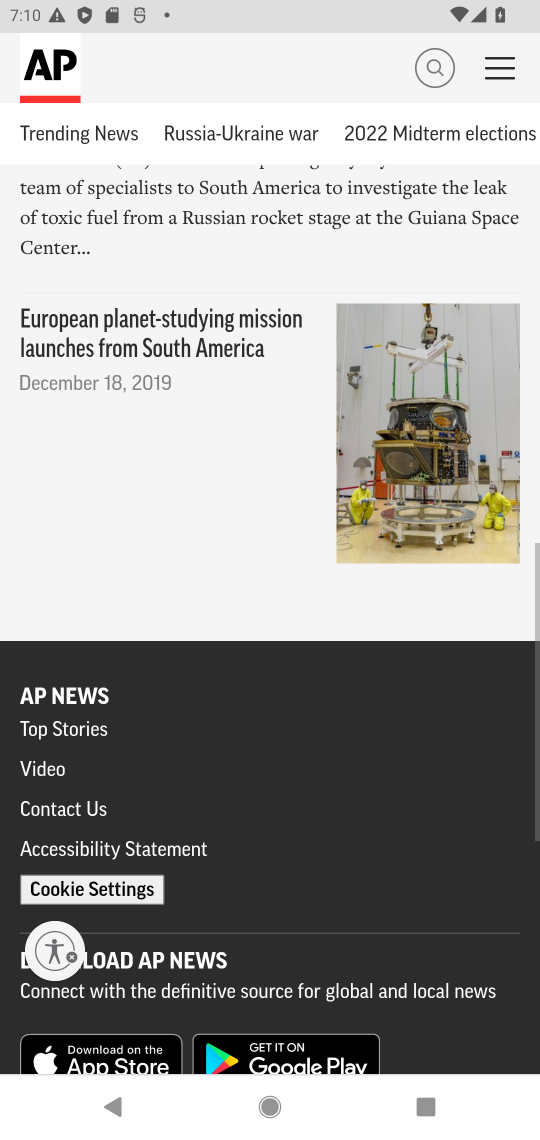
Step 46: drag from (369, 659) to (389, 317)
Your task to perform on an android device: What's the news in French Guiana? Image 47: 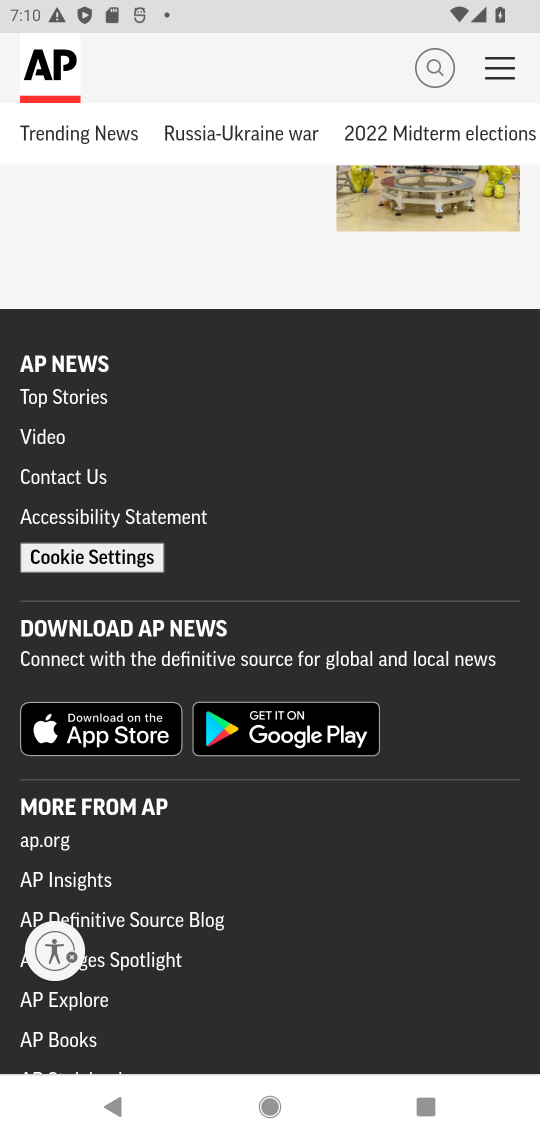
Step 47: drag from (386, 826) to (379, 440)
Your task to perform on an android device: What's the news in French Guiana? Image 48: 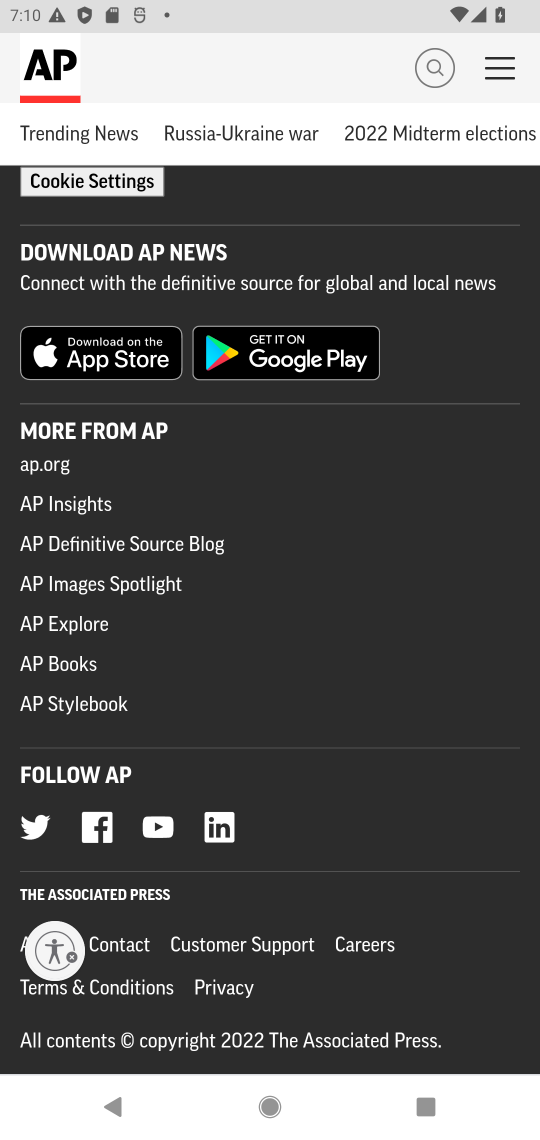
Step 48: press back button
Your task to perform on an android device: What's the news in French Guiana? Image 49: 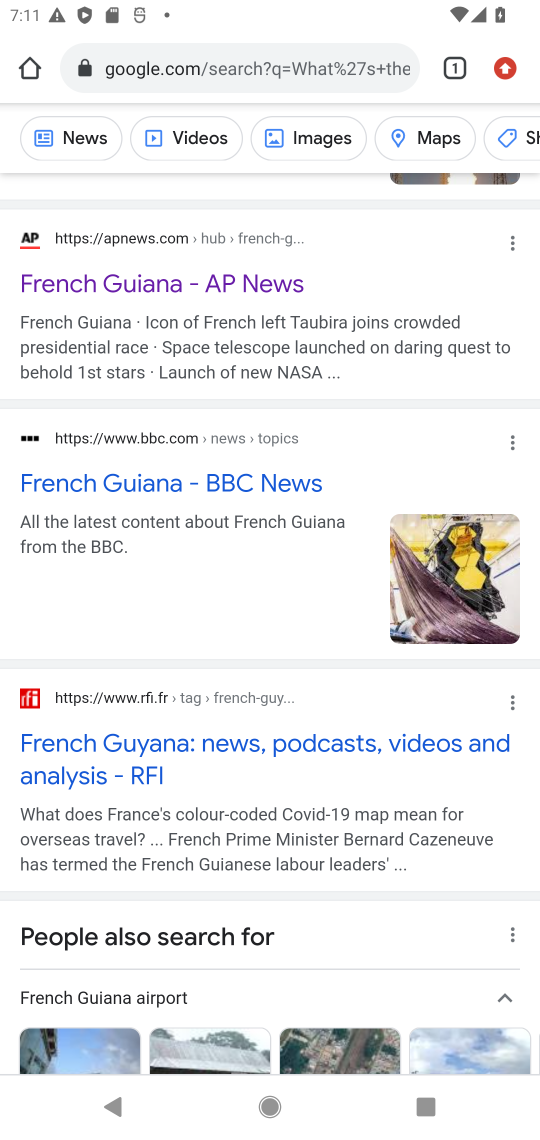
Step 49: drag from (433, 787) to (433, 369)
Your task to perform on an android device: What's the news in French Guiana? Image 50: 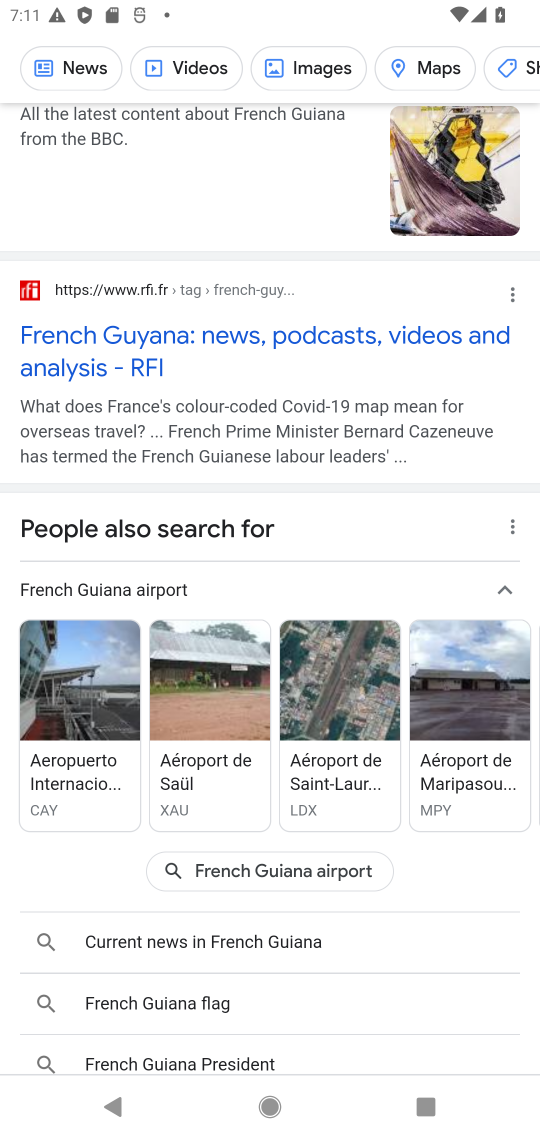
Step 50: click (299, 327)
Your task to perform on an android device: What's the news in French Guiana? Image 51: 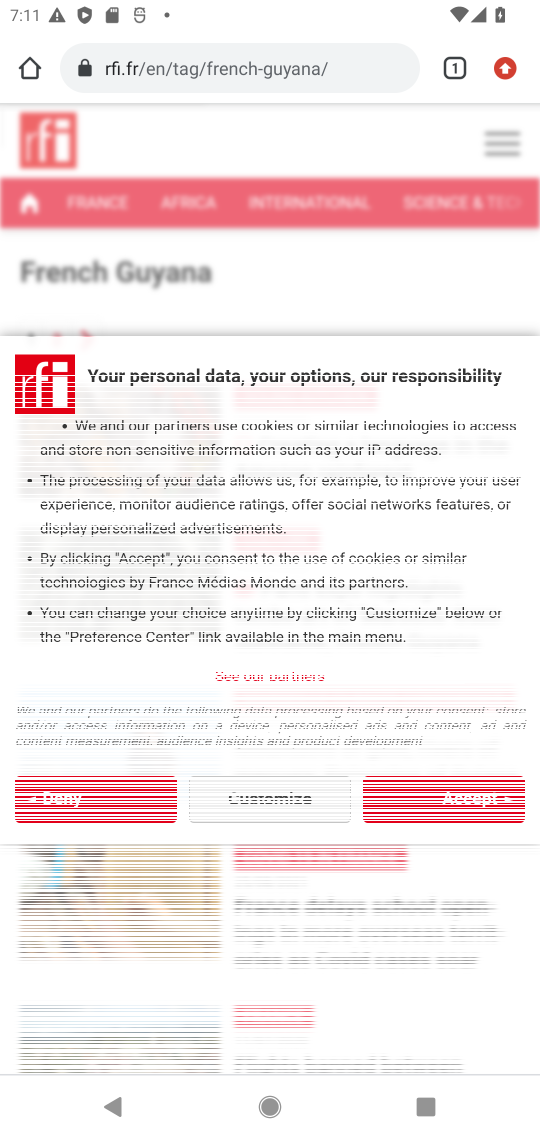
Step 51: task complete